Your task to perform on an android device: check battery use Image 0: 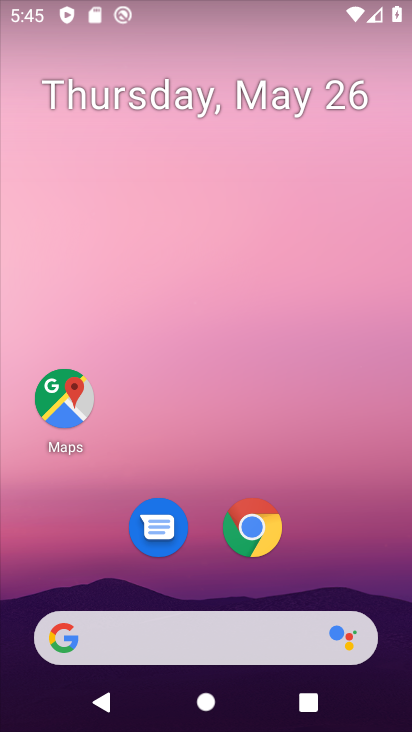
Step 0: drag from (168, 602) to (273, 155)
Your task to perform on an android device: check battery use Image 1: 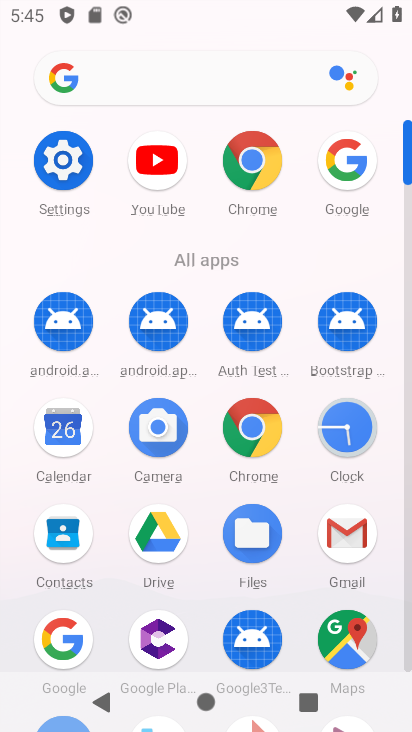
Step 1: click (72, 166)
Your task to perform on an android device: check battery use Image 2: 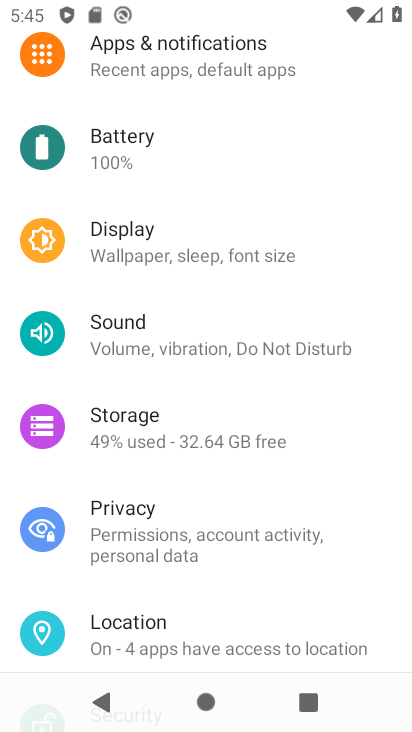
Step 2: click (140, 139)
Your task to perform on an android device: check battery use Image 3: 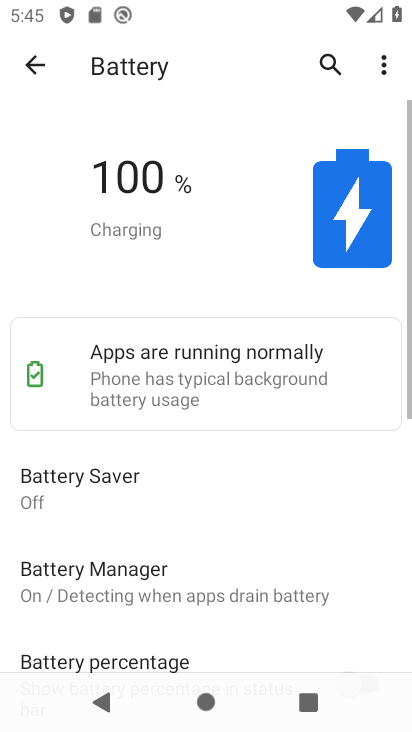
Step 3: click (389, 56)
Your task to perform on an android device: check battery use Image 4: 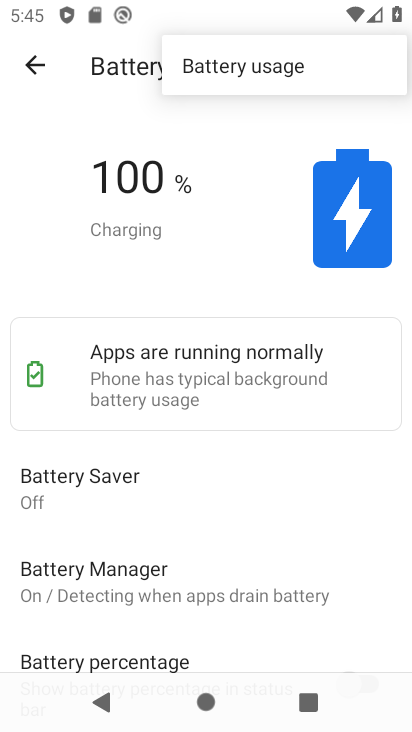
Step 4: click (236, 74)
Your task to perform on an android device: check battery use Image 5: 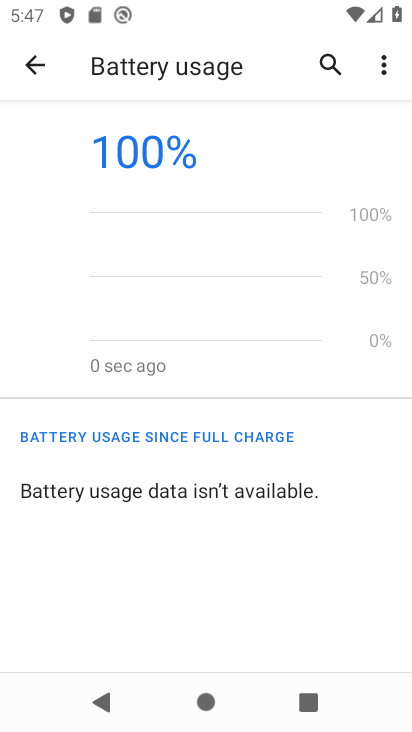
Step 5: task complete